Your task to perform on an android device: turn smart compose on in the gmail app Image 0: 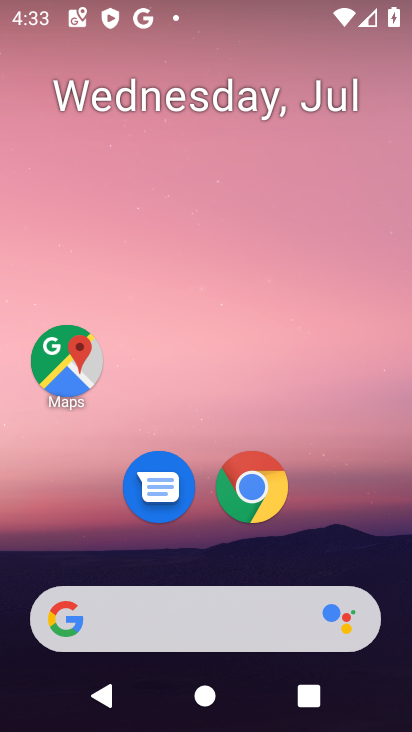
Step 0: drag from (233, 557) to (258, 3)
Your task to perform on an android device: turn smart compose on in the gmail app Image 1: 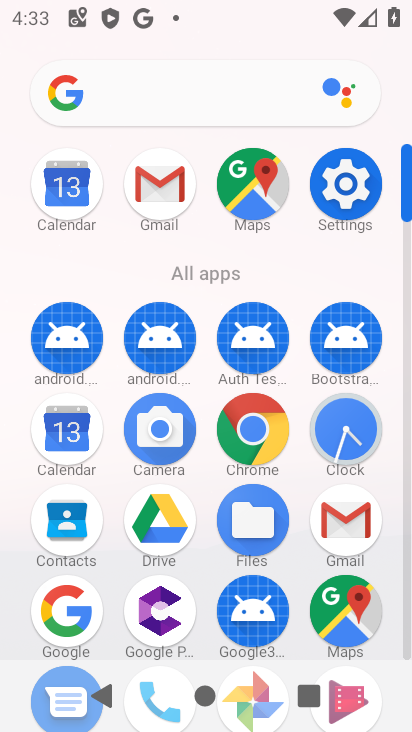
Step 1: click (162, 178)
Your task to perform on an android device: turn smart compose on in the gmail app Image 2: 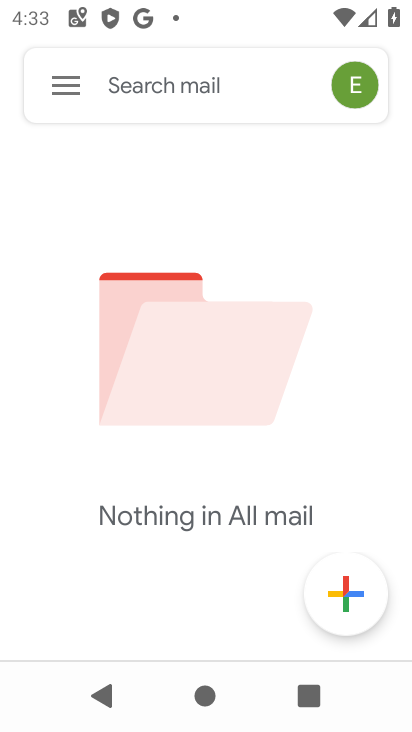
Step 2: click (53, 84)
Your task to perform on an android device: turn smart compose on in the gmail app Image 3: 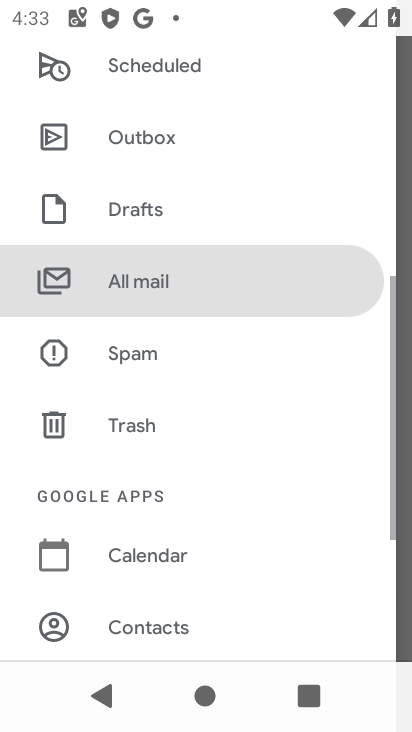
Step 3: drag from (175, 612) to (235, 78)
Your task to perform on an android device: turn smart compose on in the gmail app Image 4: 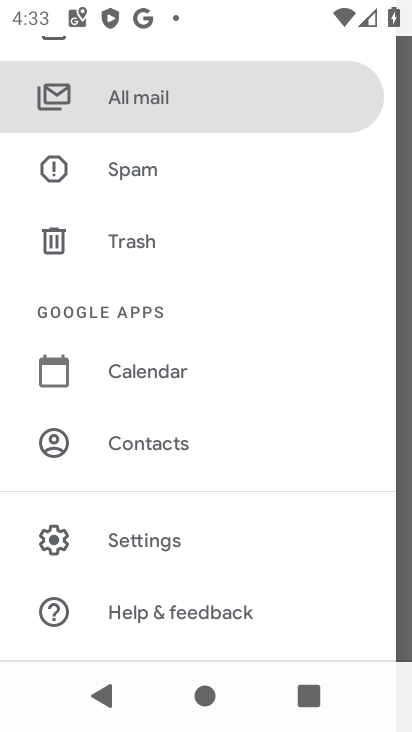
Step 4: click (140, 536)
Your task to perform on an android device: turn smart compose on in the gmail app Image 5: 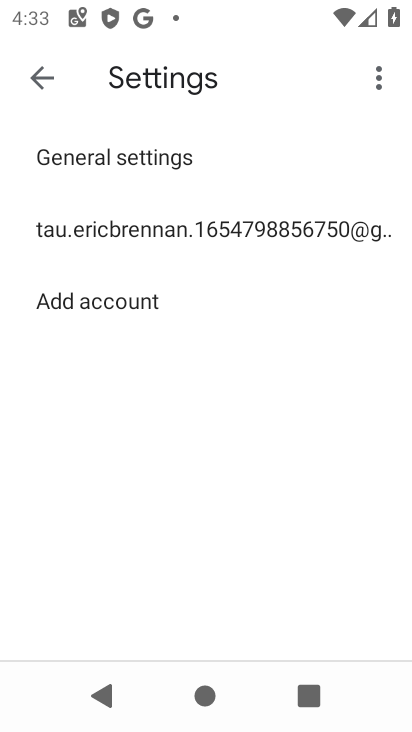
Step 5: click (112, 217)
Your task to perform on an android device: turn smart compose on in the gmail app Image 6: 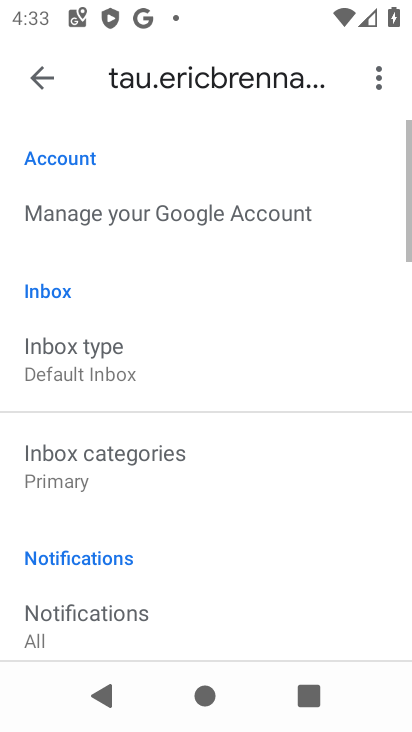
Step 6: task complete